Your task to perform on an android device: Search for sushi restaurants on Maps Image 0: 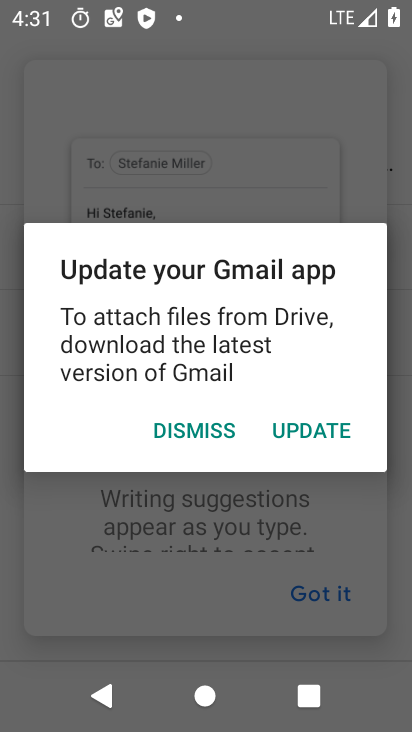
Step 0: press home button
Your task to perform on an android device: Search for sushi restaurants on Maps Image 1: 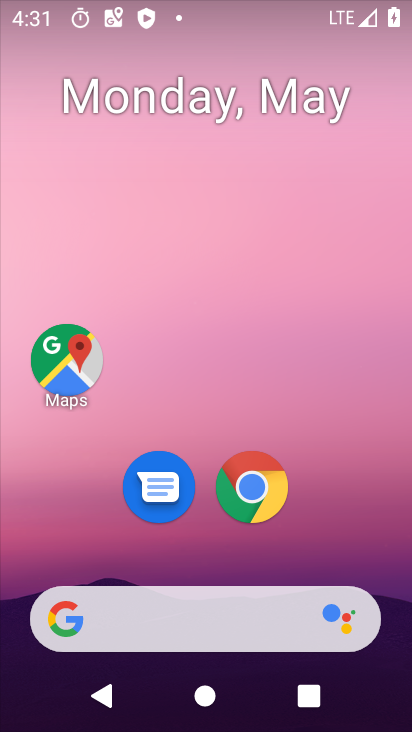
Step 1: click (60, 347)
Your task to perform on an android device: Search for sushi restaurants on Maps Image 2: 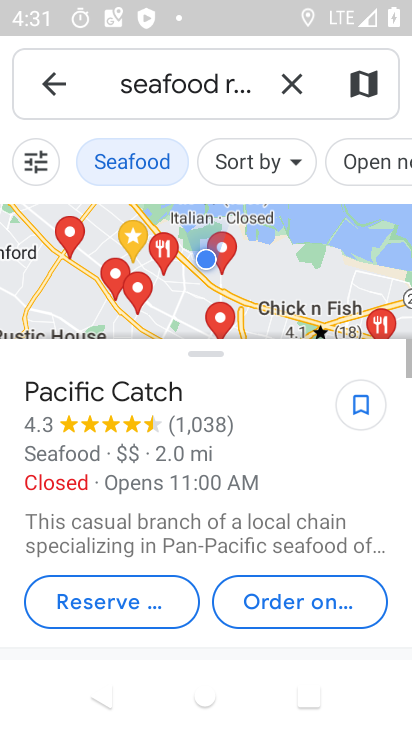
Step 2: click (289, 92)
Your task to perform on an android device: Search for sushi restaurants on Maps Image 3: 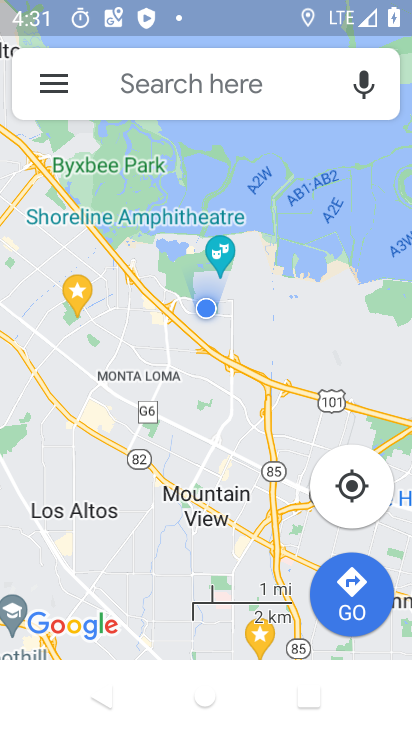
Step 3: click (146, 81)
Your task to perform on an android device: Search for sushi restaurants on Maps Image 4: 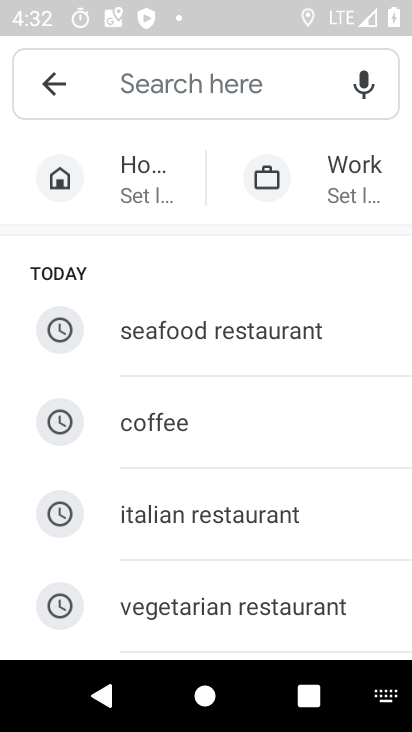
Step 4: type "sushi restaurant"
Your task to perform on an android device: Search for sushi restaurants on Maps Image 5: 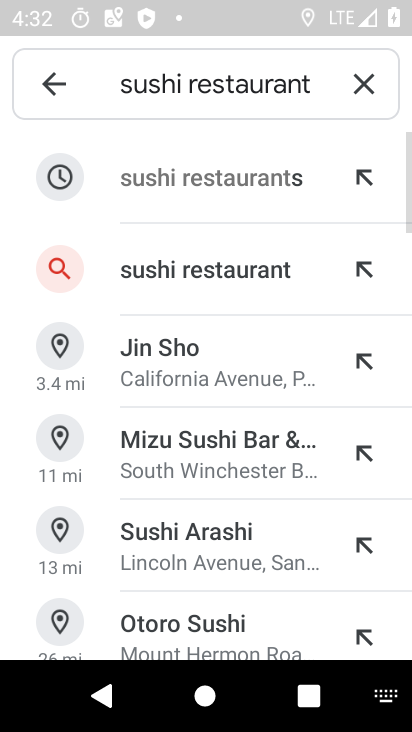
Step 5: click (176, 267)
Your task to perform on an android device: Search for sushi restaurants on Maps Image 6: 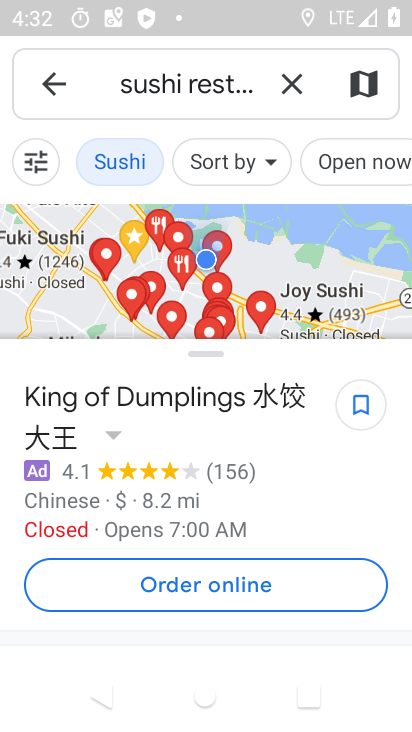
Step 6: task complete